Your task to perform on an android device: turn off notifications settings in the gmail app Image 0: 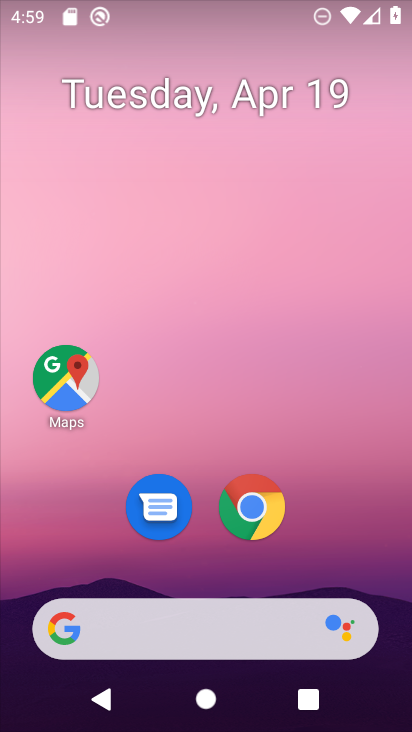
Step 0: drag from (326, 581) to (351, 48)
Your task to perform on an android device: turn off notifications settings in the gmail app Image 1: 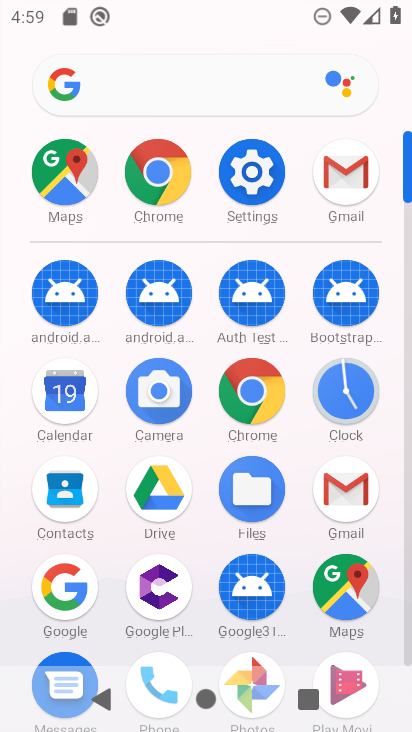
Step 1: click (345, 169)
Your task to perform on an android device: turn off notifications settings in the gmail app Image 2: 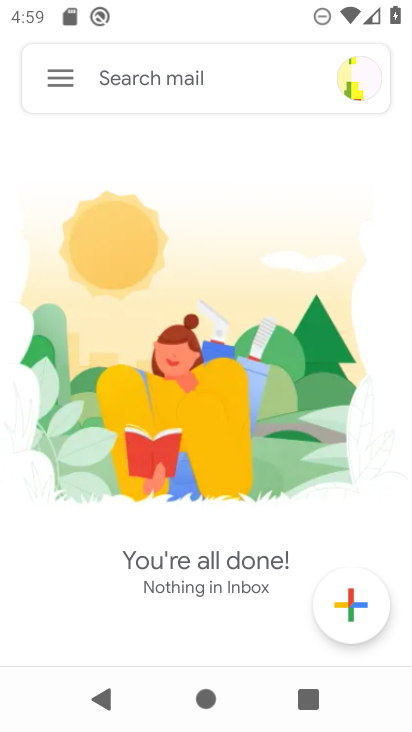
Step 2: click (60, 67)
Your task to perform on an android device: turn off notifications settings in the gmail app Image 3: 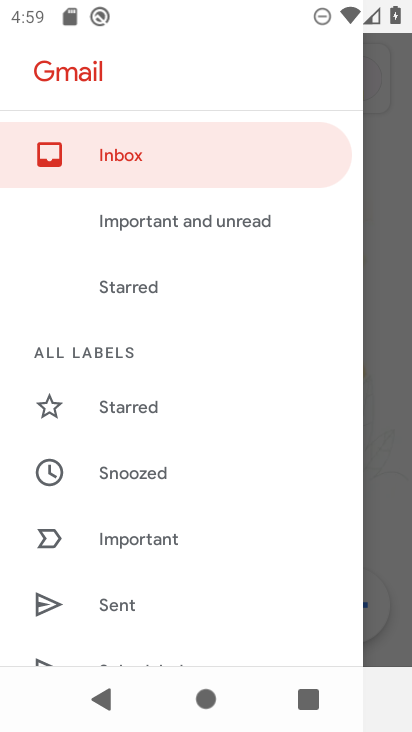
Step 3: drag from (228, 503) to (255, 350)
Your task to perform on an android device: turn off notifications settings in the gmail app Image 4: 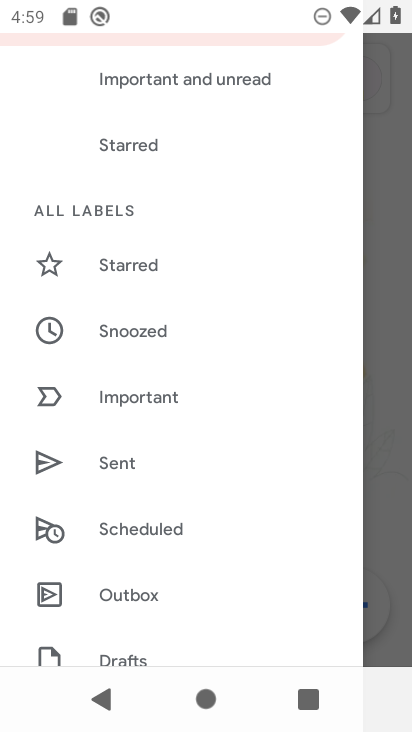
Step 4: drag from (238, 566) to (274, 445)
Your task to perform on an android device: turn off notifications settings in the gmail app Image 5: 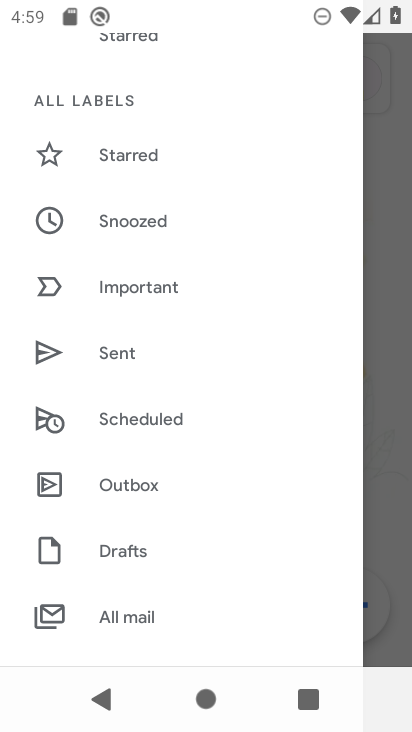
Step 5: drag from (286, 580) to (289, 466)
Your task to perform on an android device: turn off notifications settings in the gmail app Image 6: 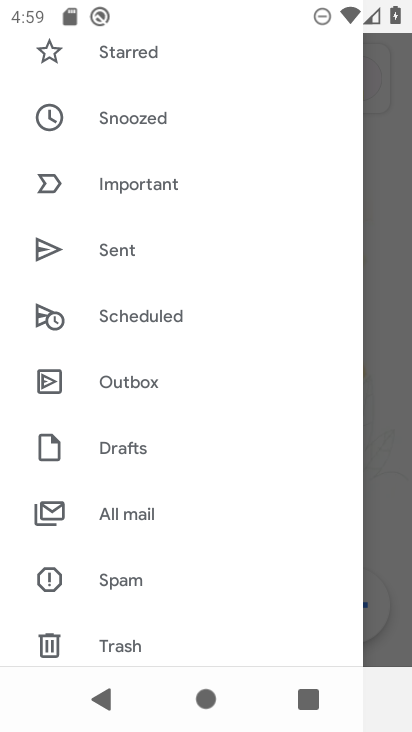
Step 6: drag from (256, 619) to (253, 539)
Your task to perform on an android device: turn off notifications settings in the gmail app Image 7: 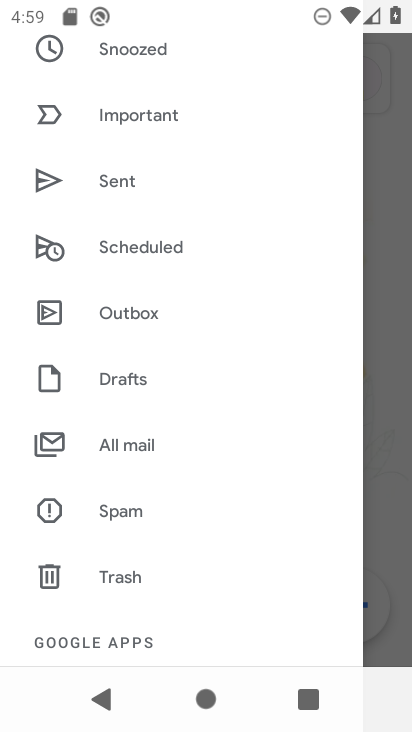
Step 7: drag from (260, 531) to (279, 433)
Your task to perform on an android device: turn off notifications settings in the gmail app Image 8: 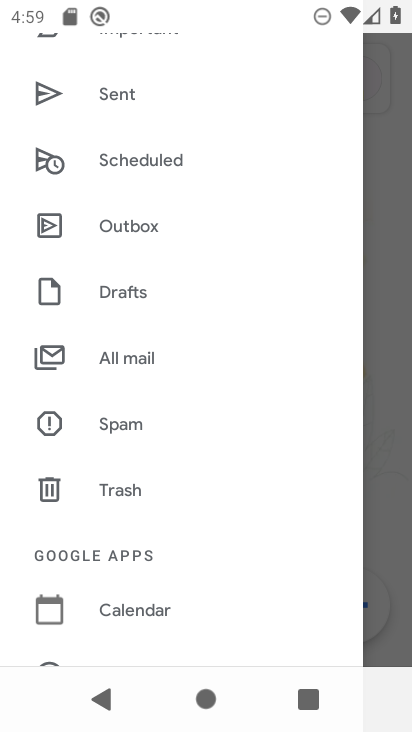
Step 8: drag from (237, 574) to (279, 458)
Your task to perform on an android device: turn off notifications settings in the gmail app Image 9: 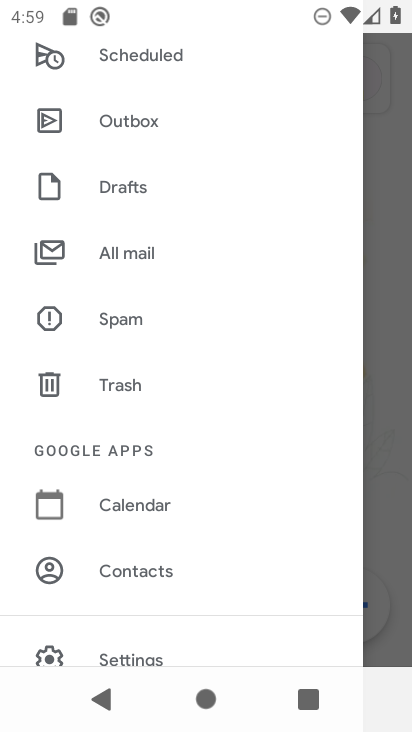
Step 9: click (236, 639)
Your task to perform on an android device: turn off notifications settings in the gmail app Image 10: 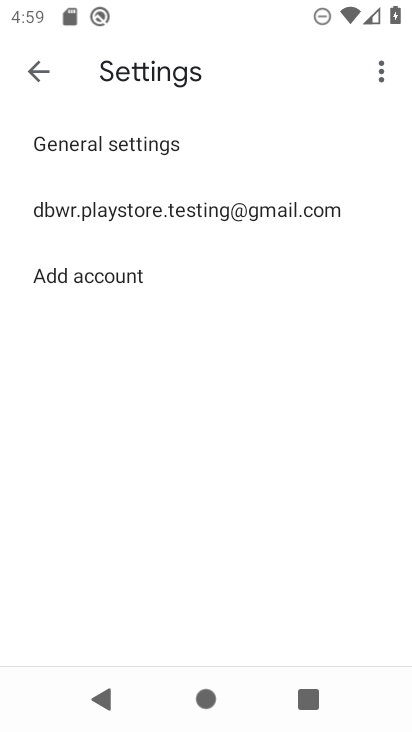
Step 10: click (299, 218)
Your task to perform on an android device: turn off notifications settings in the gmail app Image 11: 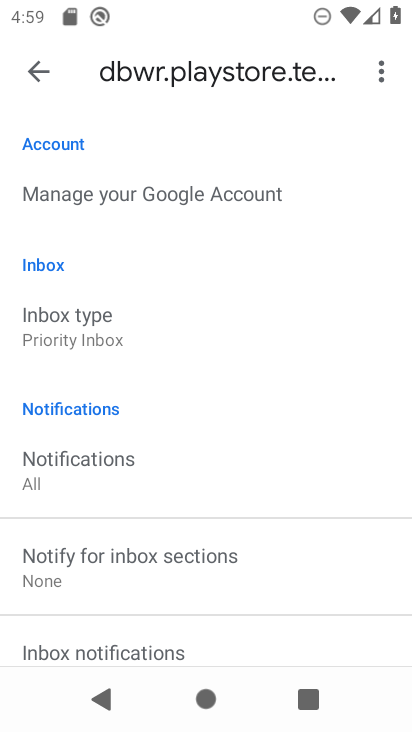
Step 11: drag from (221, 526) to (227, 421)
Your task to perform on an android device: turn off notifications settings in the gmail app Image 12: 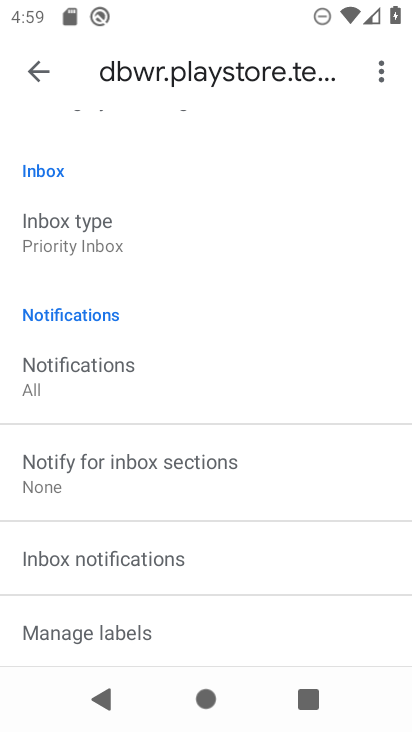
Step 12: drag from (181, 625) to (197, 518)
Your task to perform on an android device: turn off notifications settings in the gmail app Image 13: 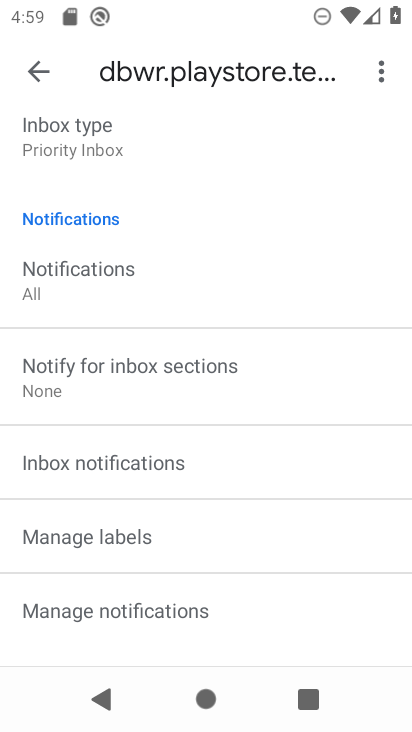
Step 13: click (199, 598)
Your task to perform on an android device: turn off notifications settings in the gmail app Image 14: 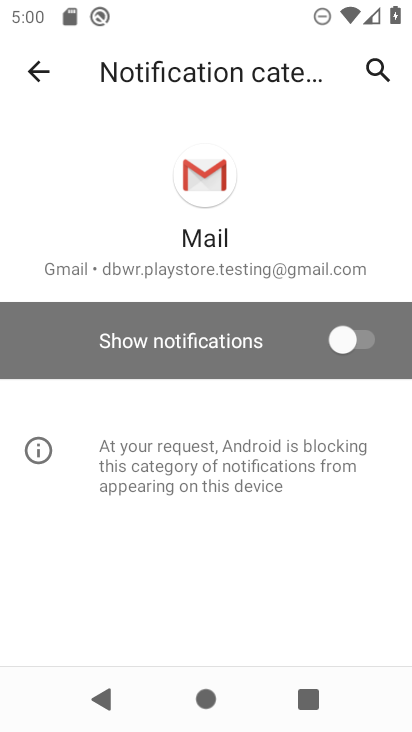
Step 14: task complete